Your task to perform on an android device: Open Google Chrome Image 0: 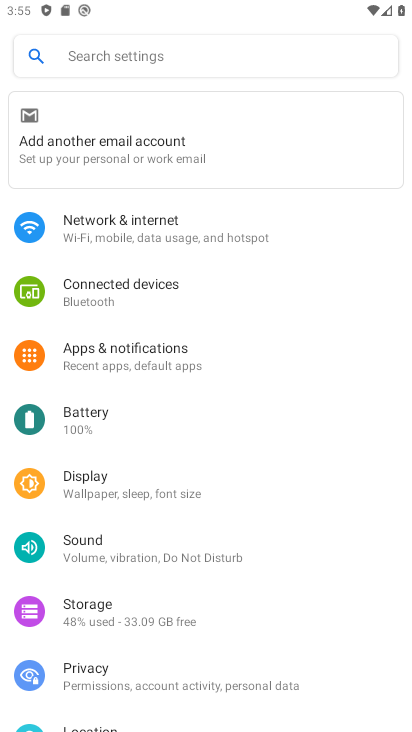
Step 0: press back button
Your task to perform on an android device: Open Google Chrome Image 1: 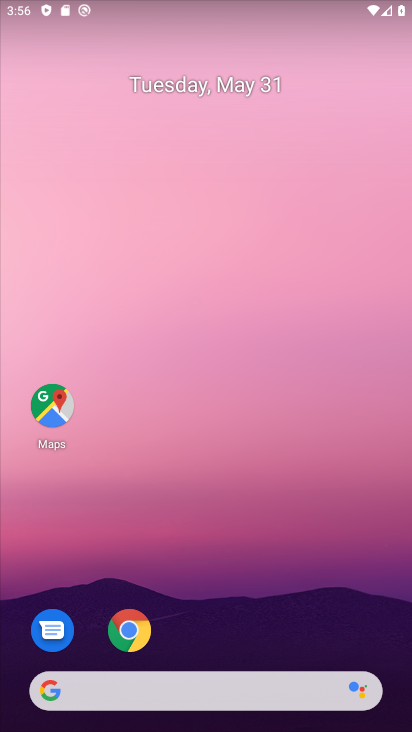
Step 1: drag from (290, 621) to (203, 24)
Your task to perform on an android device: Open Google Chrome Image 2: 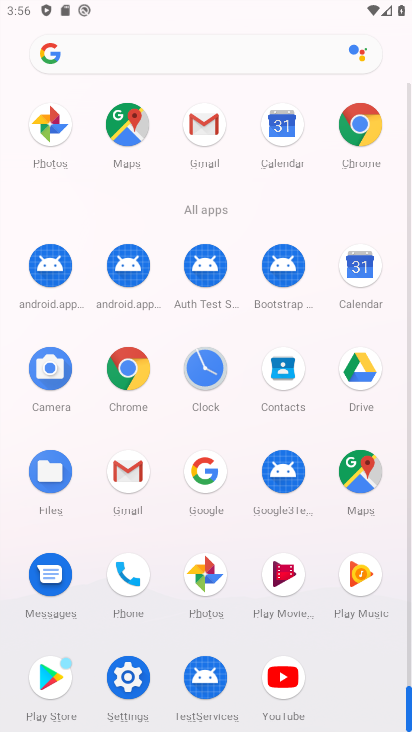
Step 2: click (127, 368)
Your task to perform on an android device: Open Google Chrome Image 3: 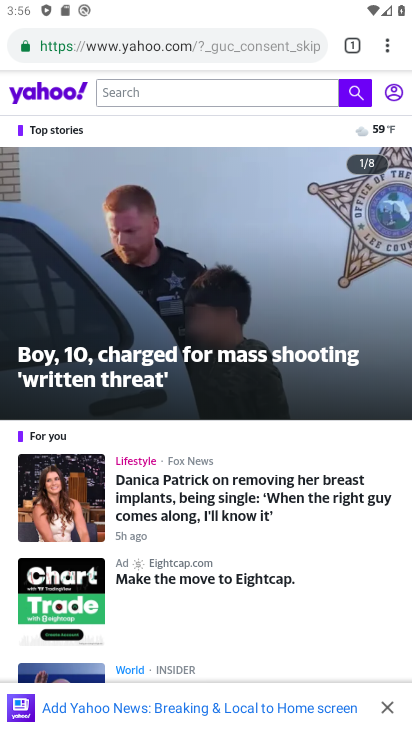
Step 3: task complete